Your task to perform on an android device: What's on my calendar today? Image 0: 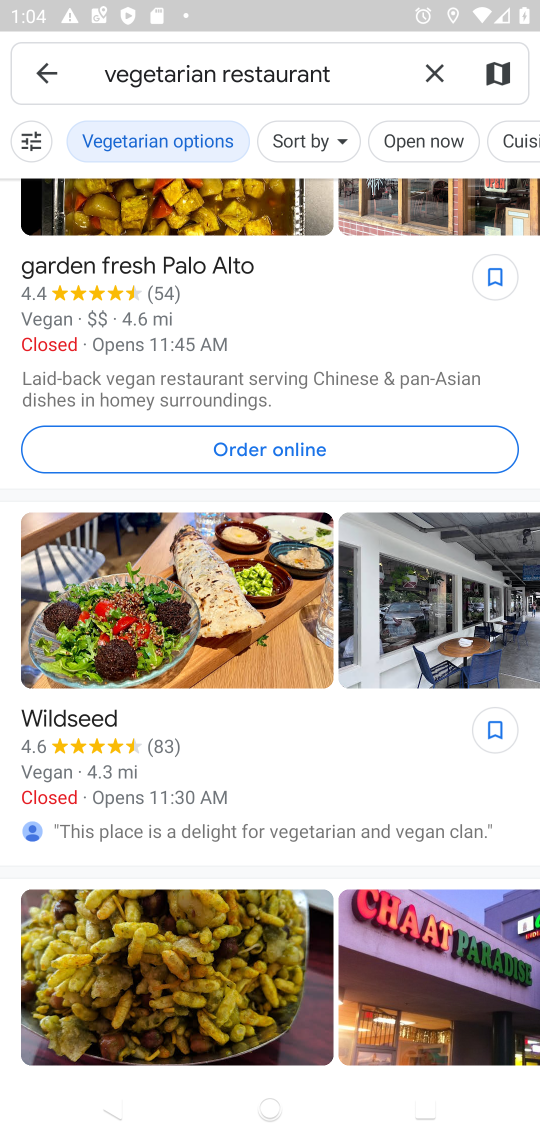
Step 0: press home button
Your task to perform on an android device: What's on my calendar today? Image 1: 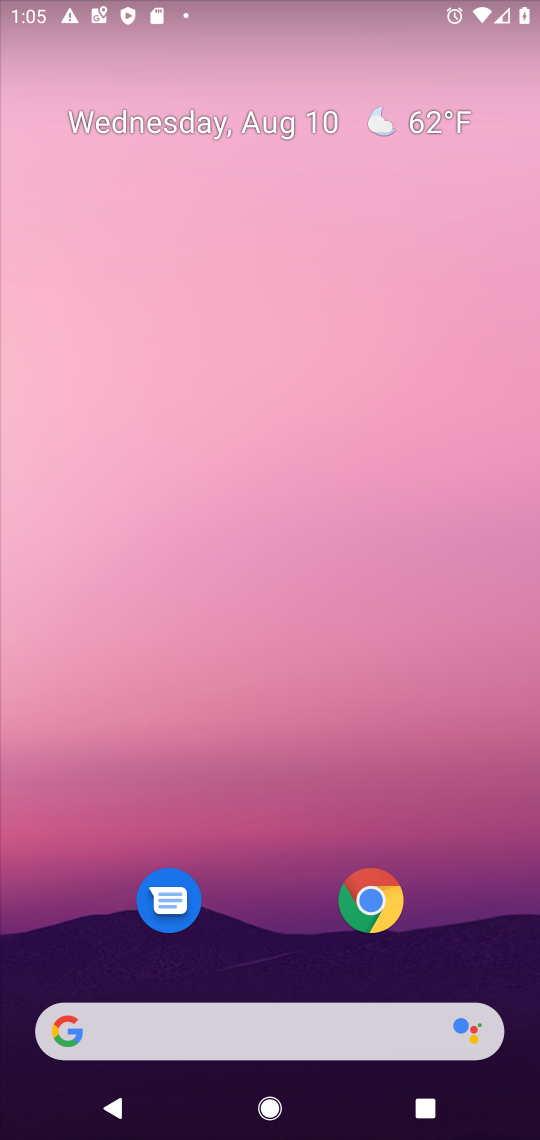
Step 1: drag from (270, 891) to (356, 0)
Your task to perform on an android device: What's on my calendar today? Image 2: 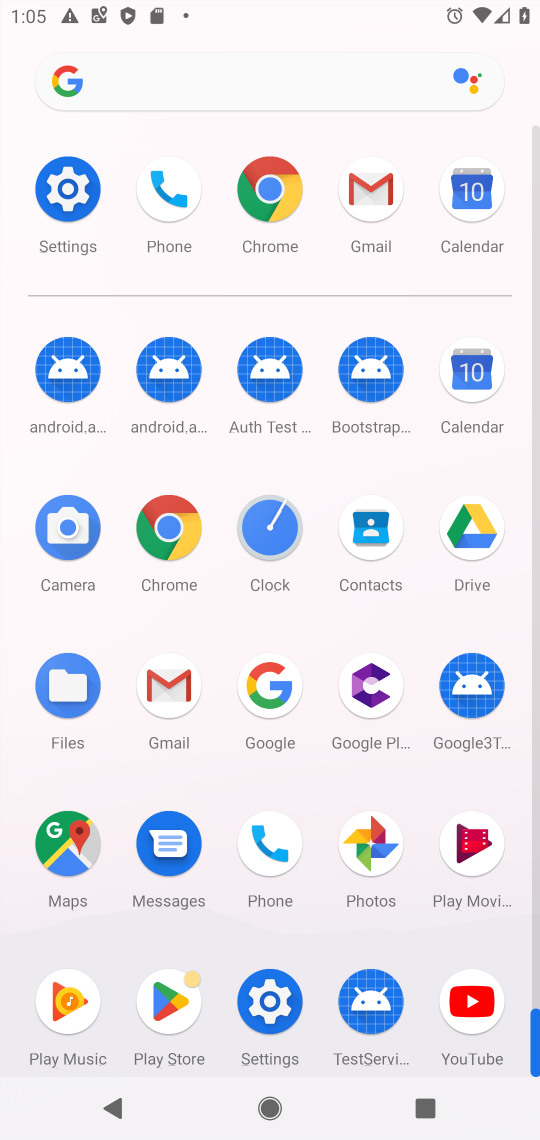
Step 2: click (475, 192)
Your task to perform on an android device: What's on my calendar today? Image 3: 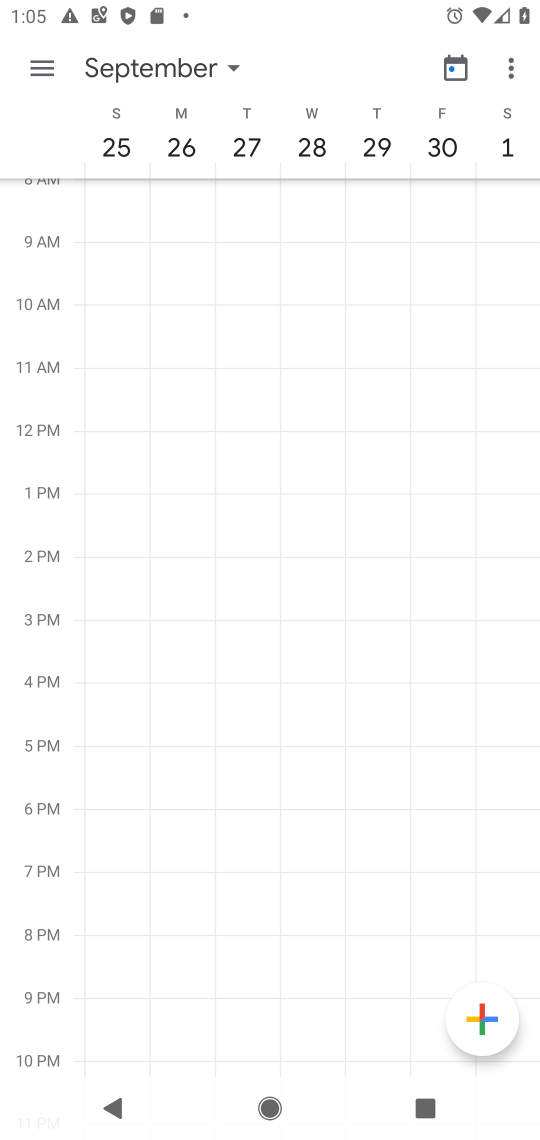
Step 3: click (39, 63)
Your task to perform on an android device: What's on my calendar today? Image 4: 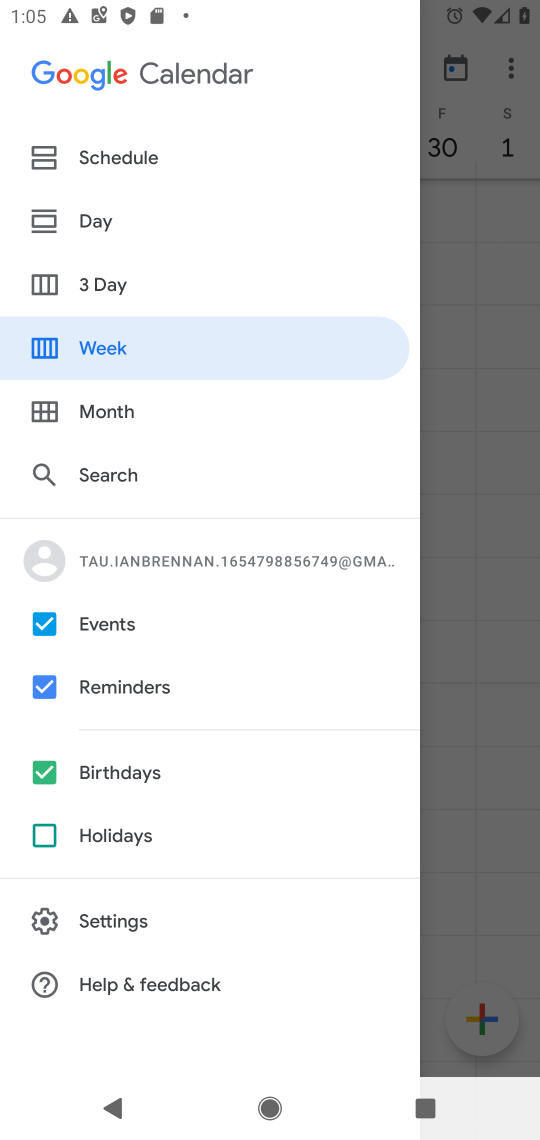
Step 4: click (51, 413)
Your task to perform on an android device: What's on my calendar today? Image 5: 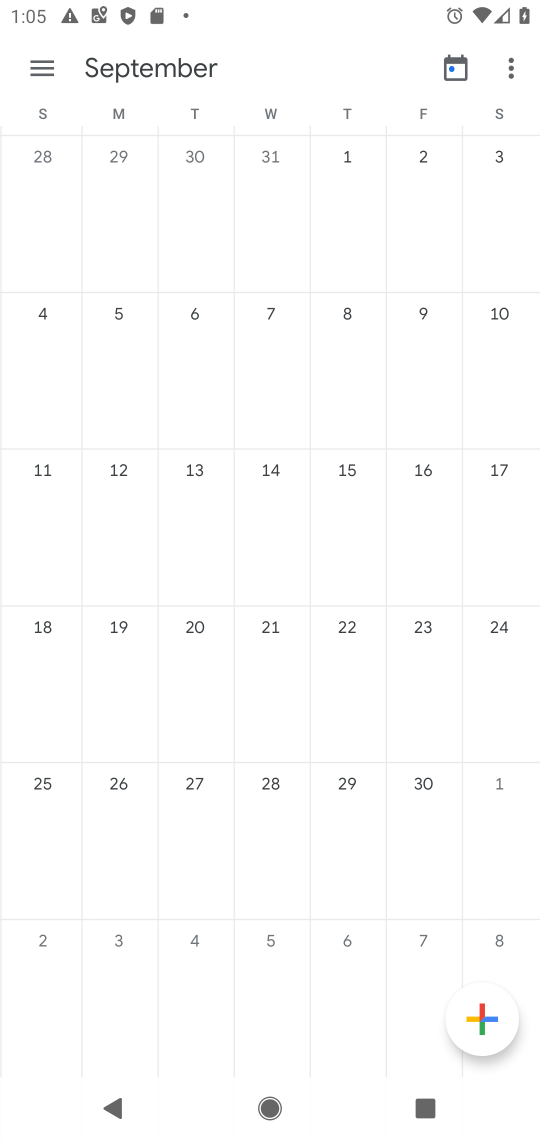
Step 5: drag from (128, 396) to (531, 533)
Your task to perform on an android device: What's on my calendar today? Image 6: 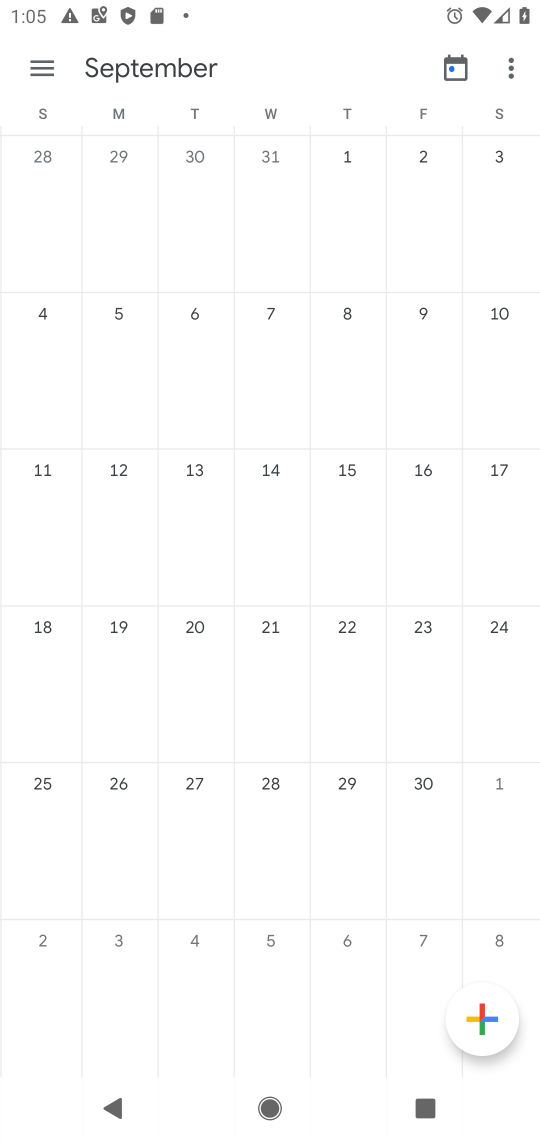
Step 6: drag from (128, 374) to (533, 399)
Your task to perform on an android device: What's on my calendar today? Image 7: 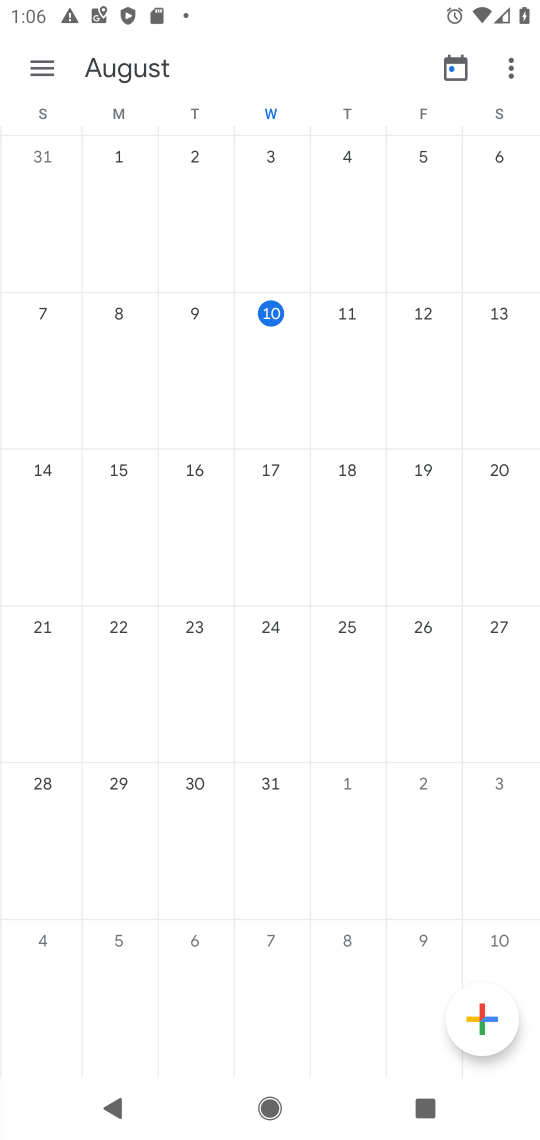
Step 7: click (270, 312)
Your task to perform on an android device: What's on my calendar today? Image 8: 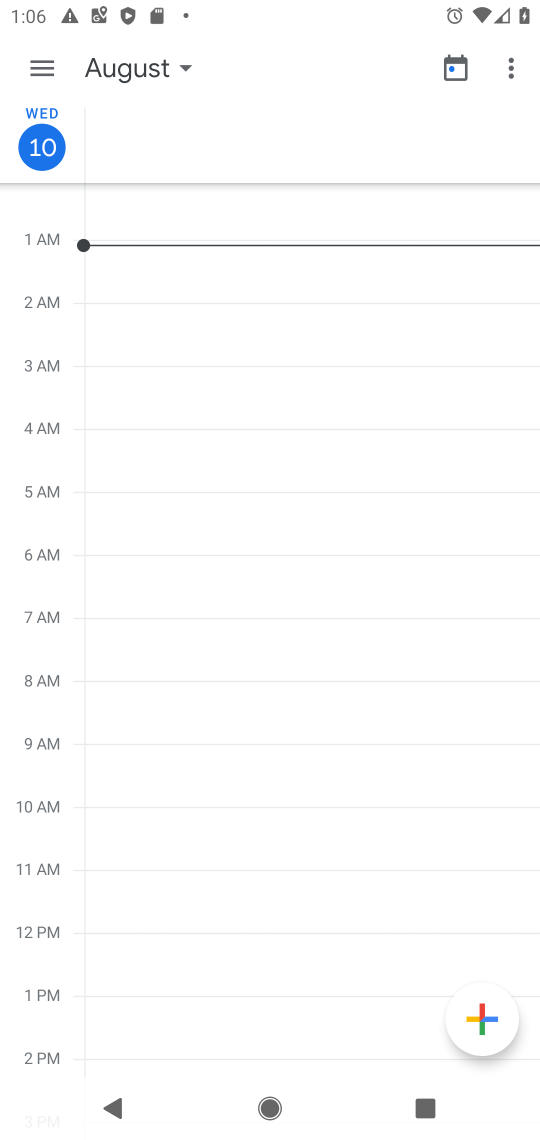
Step 8: task complete